Your task to perform on an android device: Open Chrome and go to settings Image 0: 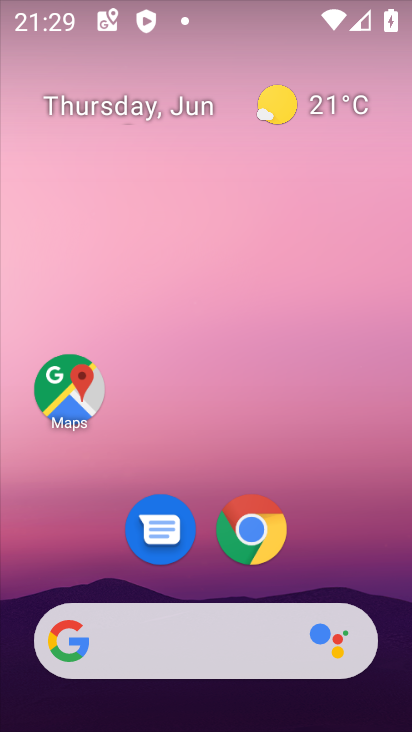
Step 0: click (245, 527)
Your task to perform on an android device: Open Chrome and go to settings Image 1: 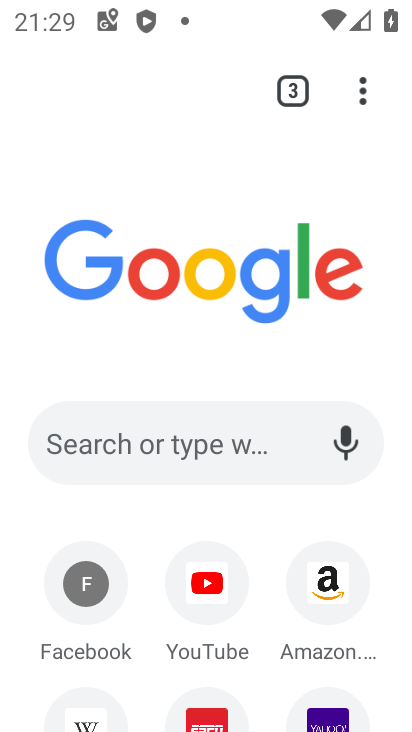
Step 1: click (362, 90)
Your task to perform on an android device: Open Chrome and go to settings Image 2: 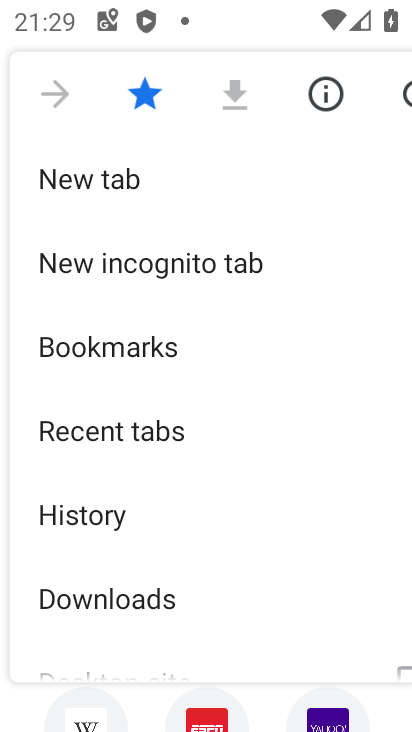
Step 2: drag from (215, 569) to (259, 254)
Your task to perform on an android device: Open Chrome and go to settings Image 3: 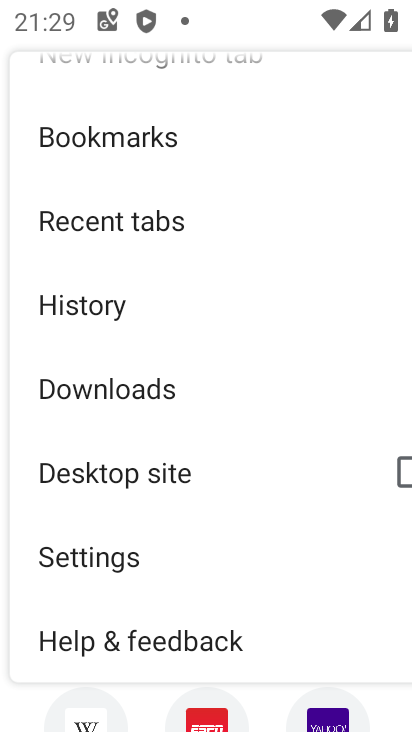
Step 3: click (93, 555)
Your task to perform on an android device: Open Chrome and go to settings Image 4: 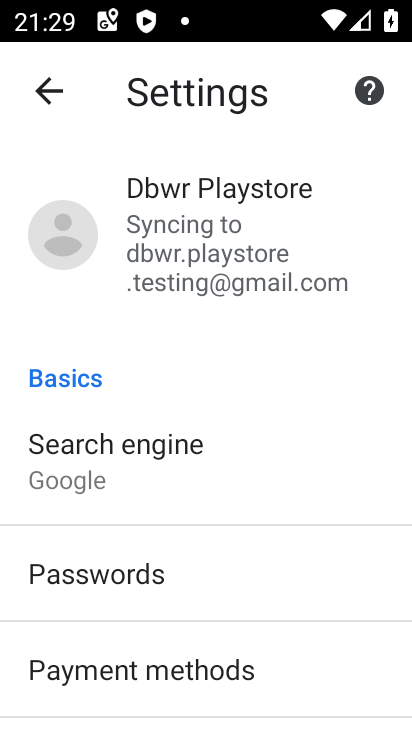
Step 4: task complete